Your task to perform on an android device: star an email in the gmail app Image 0: 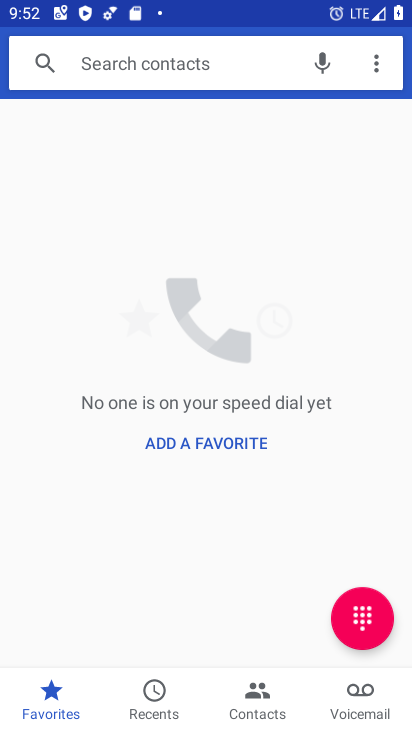
Step 0: press home button
Your task to perform on an android device: star an email in the gmail app Image 1: 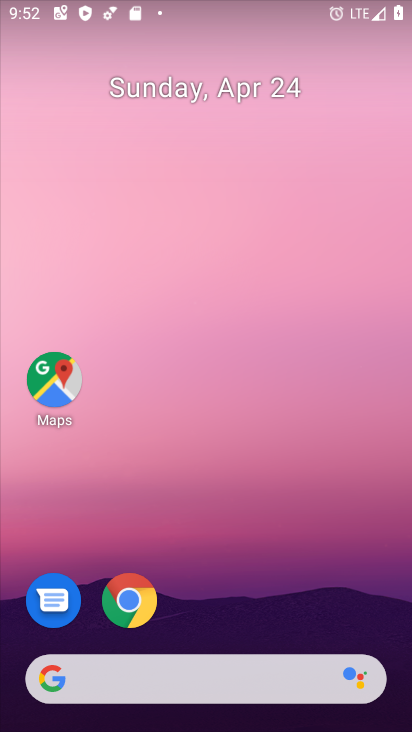
Step 1: drag from (211, 621) to (285, 17)
Your task to perform on an android device: star an email in the gmail app Image 2: 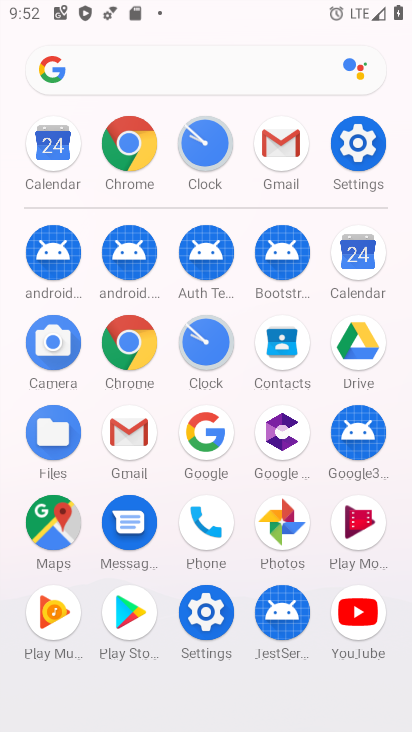
Step 2: click (129, 426)
Your task to perform on an android device: star an email in the gmail app Image 3: 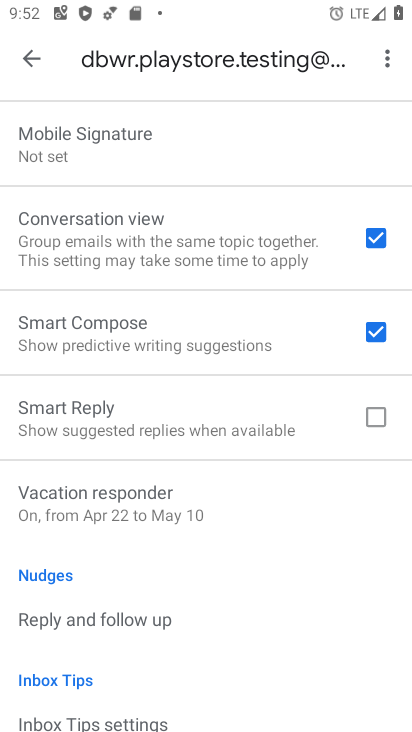
Step 3: click (28, 56)
Your task to perform on an android device: star an email in the gmail app Image 4: 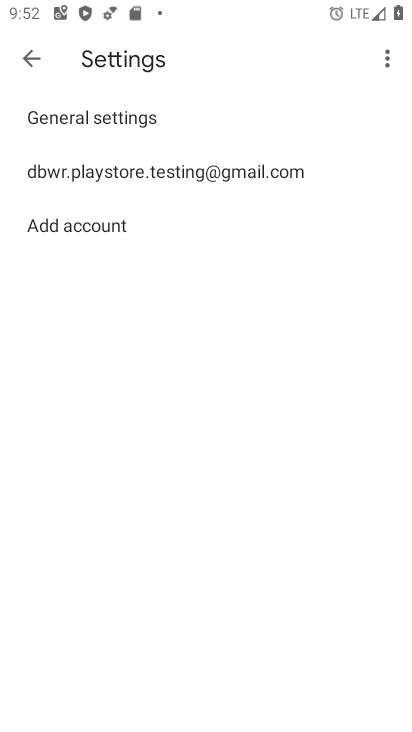
Step 4: click (35, 63)
Your task to perform on an android device: star an email in the gmail app Image 5: 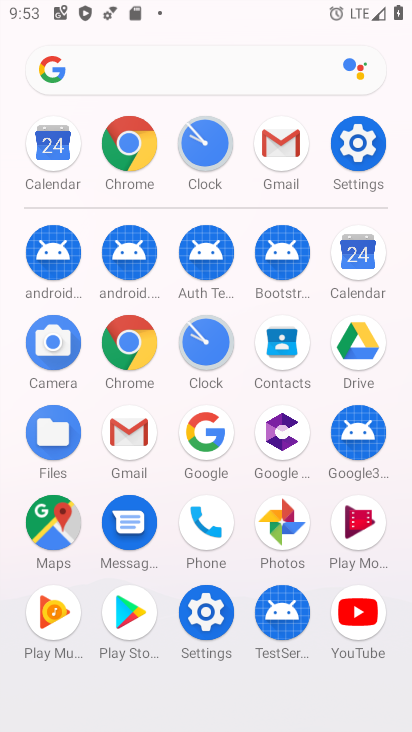
Step 5: click (120, 441)
Your task to perform on an android device: star an email in the gmail app Image 6: 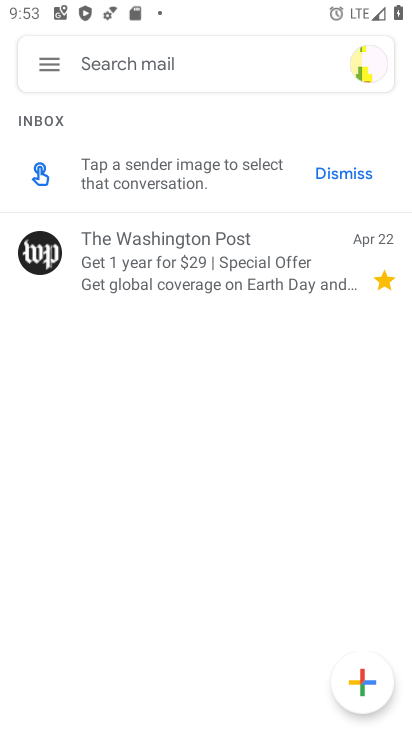
Step 6: click (50, 64)
Your task to perform on an android device: star an email in the gmail app Image 7: 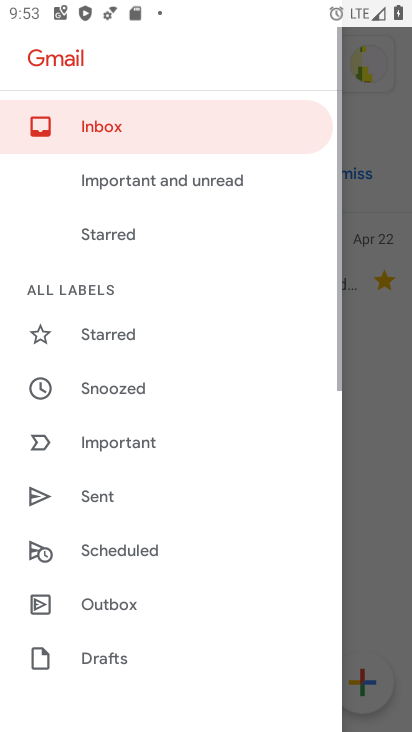
Step 7: drag from (141, 252) to (172, 84)
Your task to perform on an android device: star an email in the gmail app Image 8: 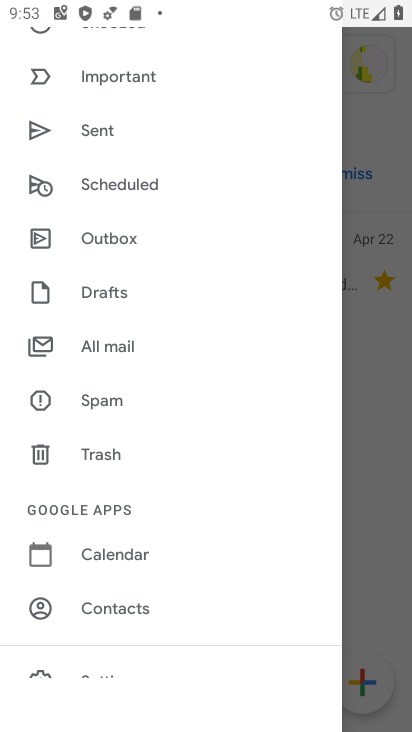
Step 8: click (106, 345)
Your task to perform on an android device: star an email in the gmail app Image 9: 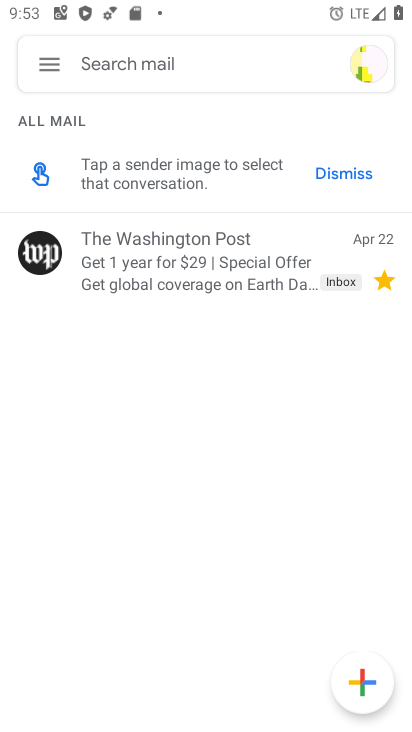
Step 9: task complete